Your task to perform on an android device: Show me productivity apps on the Play Store Image 0: 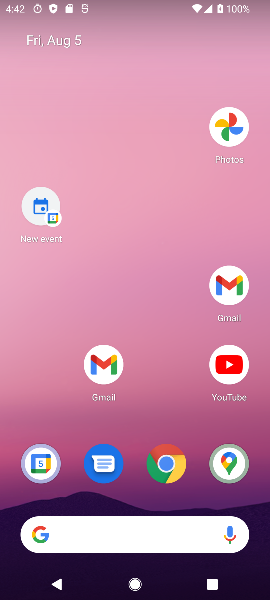
Step 0: drag from (132, 551) to (91, 218)
Your task to perform on an android device: Show me productivity apps on the Play Store Image 1: 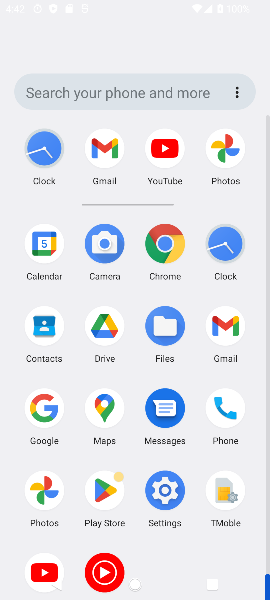
Step 1: drag from (179, 482) to (126, 202)
Your task to perform on an android device: Show me productivity apps on the Play Store Image 2: 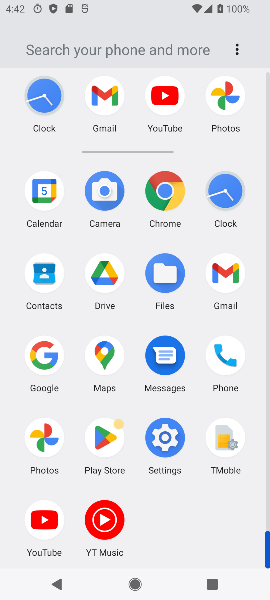
Step 2: click (97, 444)
Your task to perform on an android device: Show me productivity apps on the Play Store Image 3: 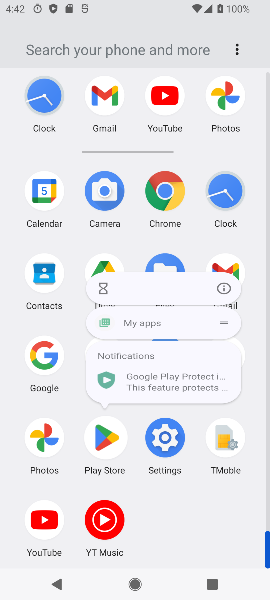
Step 3: click (101, 442)
Your task to perform on an android device: Show me productivity apps on the Play Store Image 4: 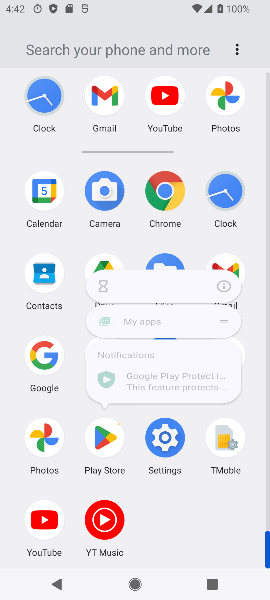
Step 4: click (101, 442)
Your task to perform on an android device: Show me productivity apps on the Play Store Image 5: 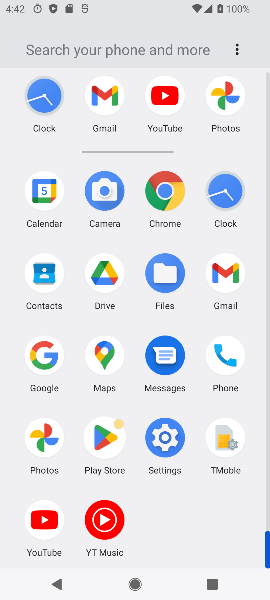
Step 5: click (101, 442)
Your task to perform on an android device: Show me productivity apps on the Play Store Image 6: 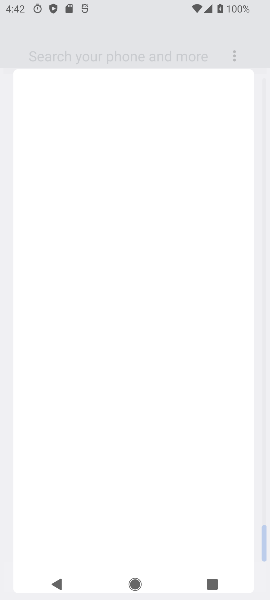
Step 6: click (102, 441)
Your task to perform on an android device: Show me productivity apps on the Play Store Image 7: 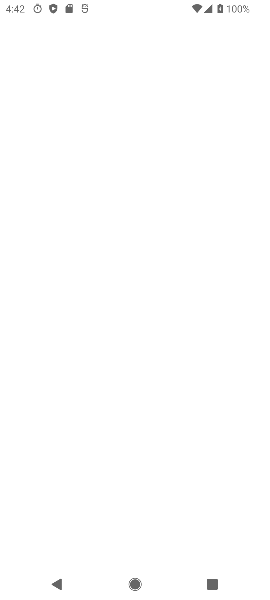
Step 7: click (103, 441)
Your task to perform on an android device: Show me productivity apps on the Play Store Image 8: 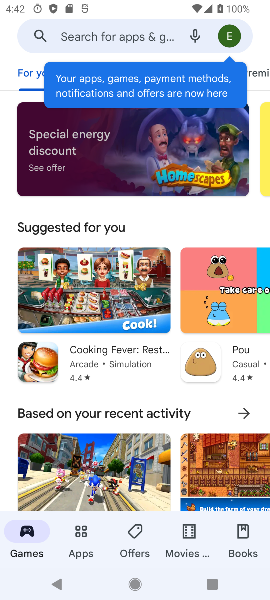
Step 8: click (82, 39)
Your task to perform on an android device: Show me productivity apps on the Play Store Image 9: 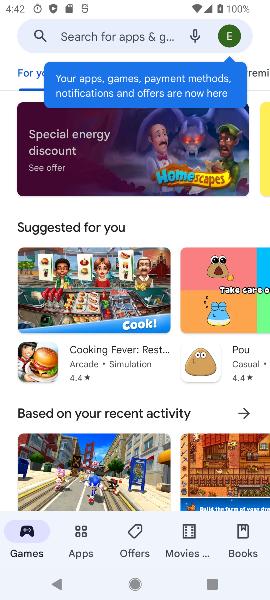
Step 9: click (82, 39)
Your task to perform on an android device: Show me productivity apps on the Play Store Image 10: 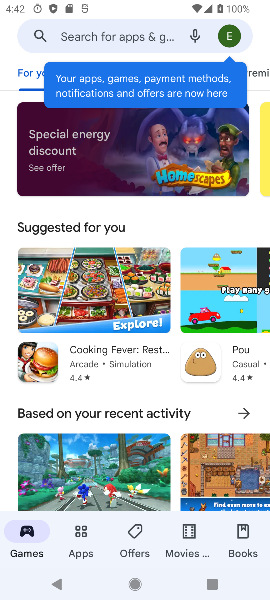
Step 10: click (82, 39)
Your task to perform on an android device: Show me productivity apps on the Play Store Image 11: 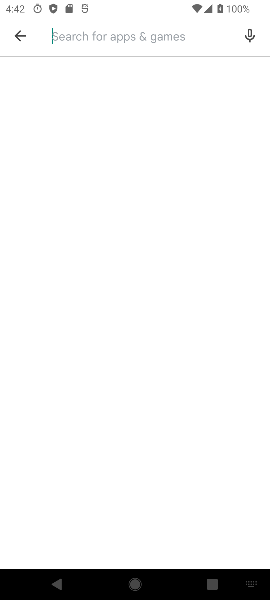
Step 11: click (82, 39)
Your task to perform on an android device: Show me productivity apps on the Play Store Image 12: 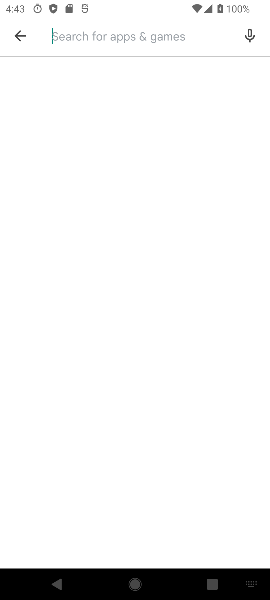
Step 12: type "productivity apps"
Your task to perform on an android device: Show me productivity apps on the Play Store Image 13: 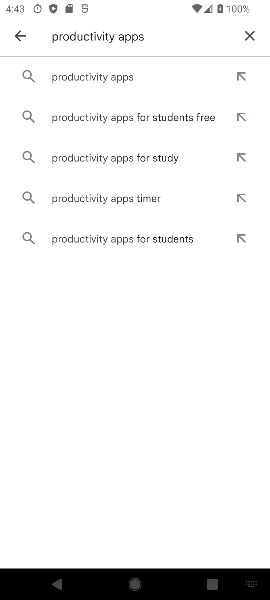
Step 13: click (122, 82)
Your task to perform on an android device: Show me productivity apps on the Play Store Image 14: 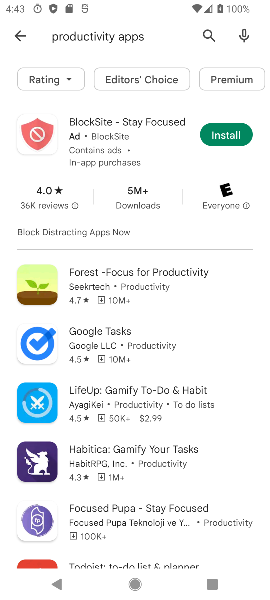
Step 14: task complete